Your task to perform on an android device: Open Amazon Image 0: 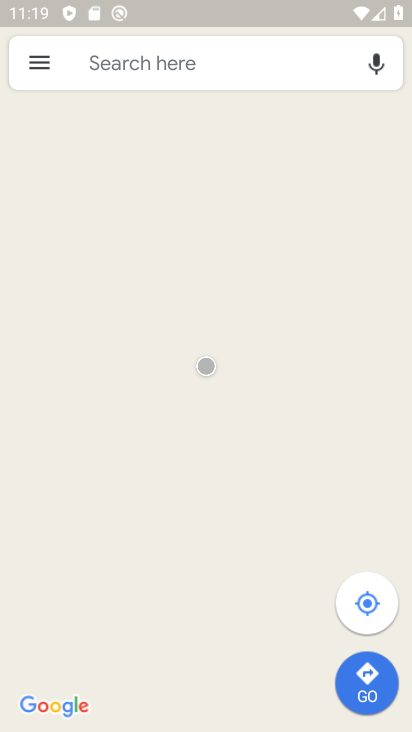
Step 0: press home button
Your task to perform on an android device: Open Amazon Image 1: 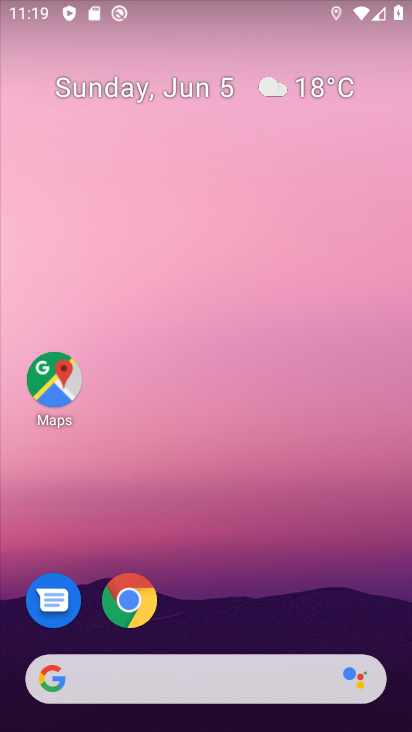
Step 1: drag from (248, 711) to (183, 258)
Your task to perform on an android device: Open Amazon Image 2: 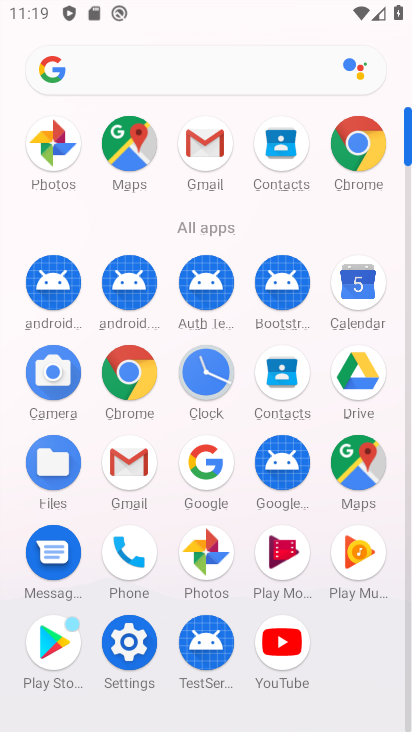
Step 2: click (351, 155)
Your task to perform on an android device: Open Amazon Image 3: 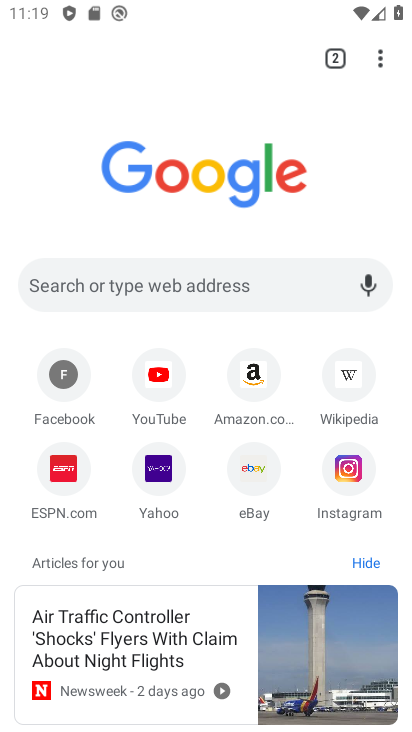
Step 3: click (249, 378)
Your task to perform on an android device: Open Amazon Image 4: 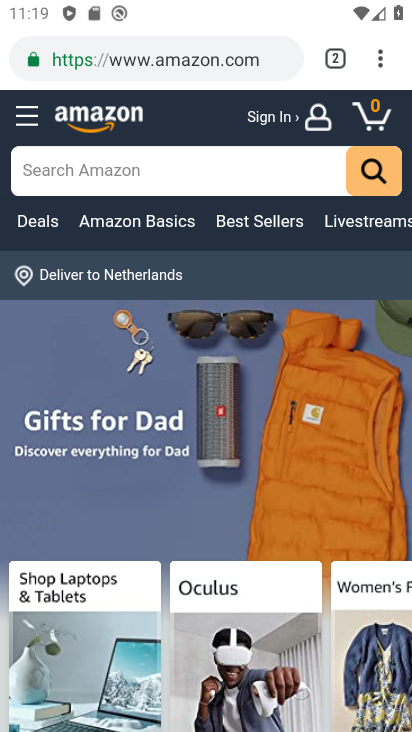
Step 4: task complete